Your task to perform on an android device: make emails show in primary in the gmail app Image 0: 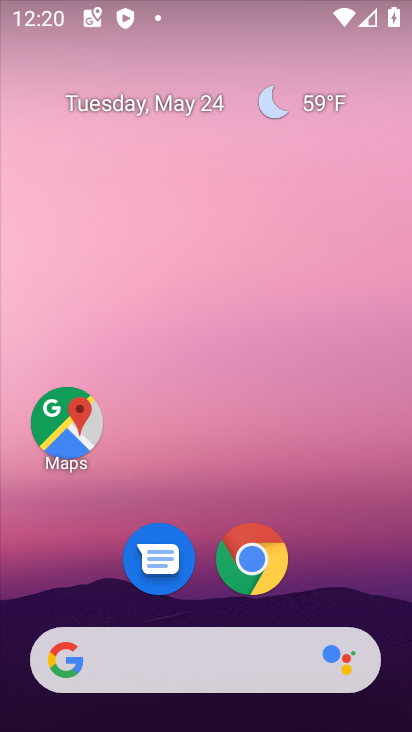
Step 0: drag from (384, 666) to (354, 168)
Your task to perform on an android device: make emails show in primary in the gmail app Image 1: 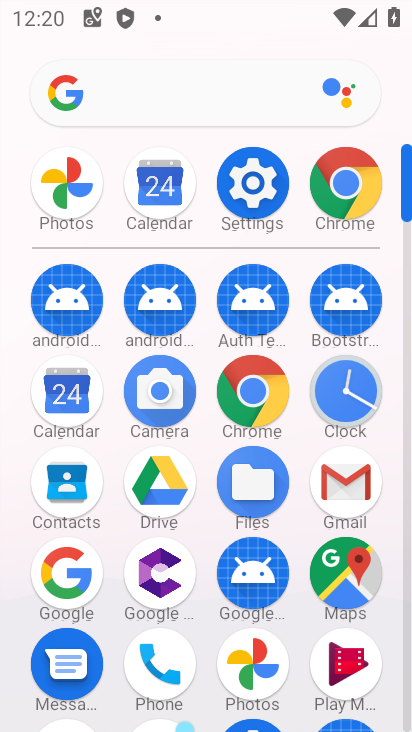
Step 1: click (348, 492)
Your task to perform on an android device: make emails show in primary in the gmail app Image 2: 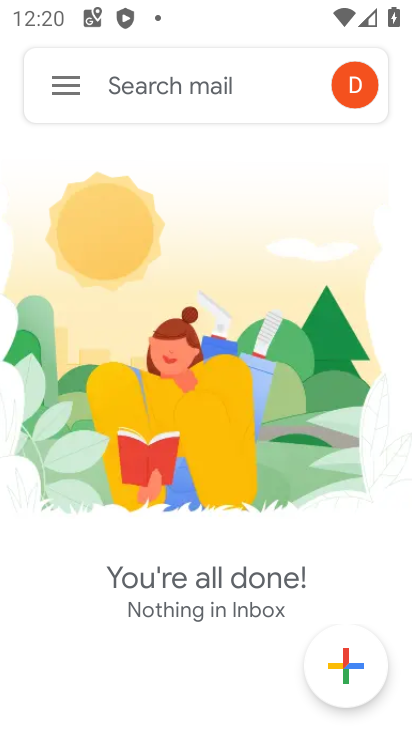
Step 2: click (73, 75)
Your task to perform on an android device: make emails show in primary in the gmail app Image 3: 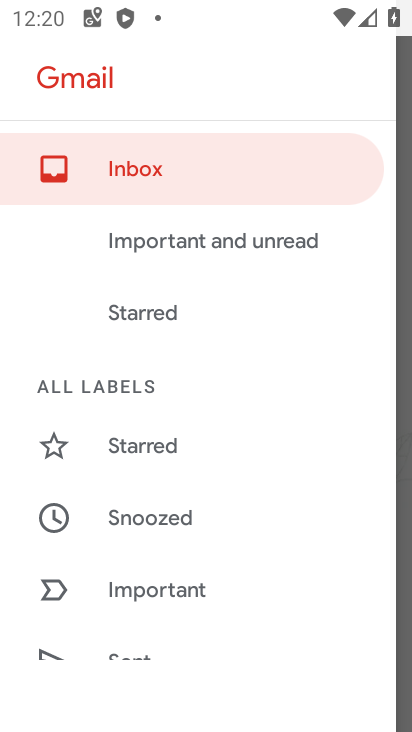
Step 3: drag from (275, 630) to (294, 222)
Your task to perform on an android device: make emails show in primary in the gmail app Image 4: 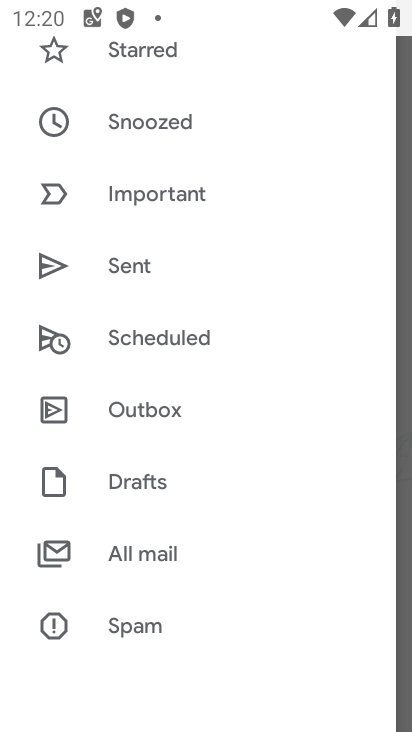
Step 4: drag from (264, 652) to (281, 299)
Your task to perform on an android device: make emails show in primary in the gmail app Image 5: 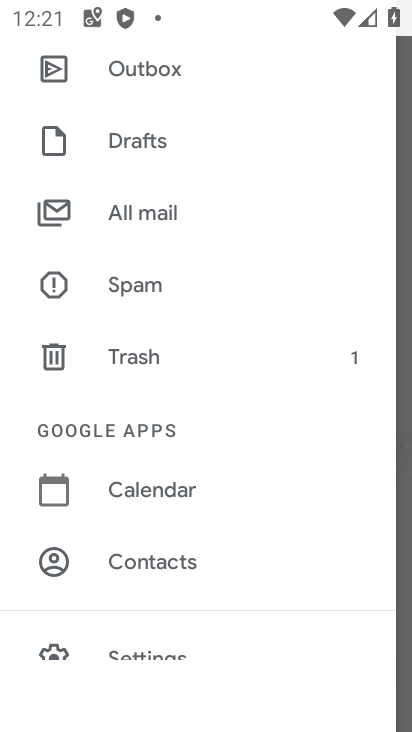
Step 5: drag from (270, 640) to (282, 292)
Your task to perform on an android device: make emails show in primary in the gmail app Image 6: 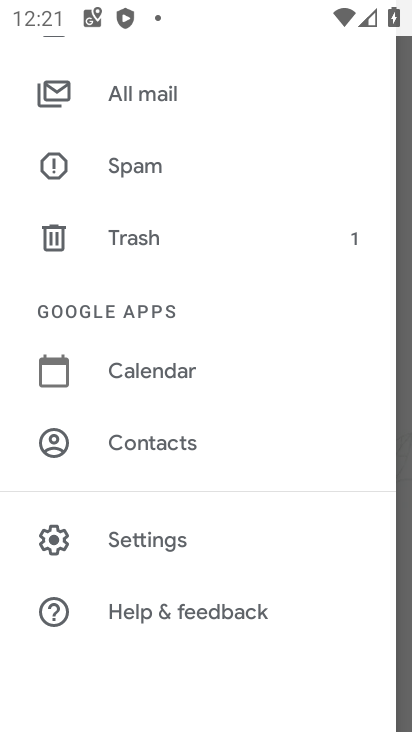
Step 6: click (126, 542)
Your task to perform on an android device: make emails show in primary in the gmail app Image 7: 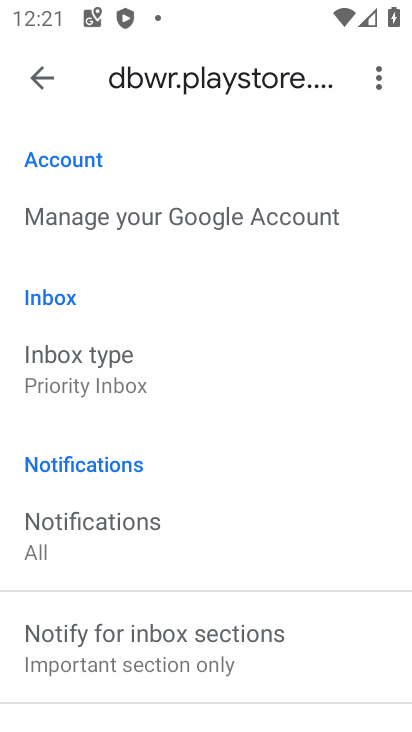
Step 7: click (70, 373)
Your task to perform on an android device: make emails show in primary in the gmail app Image 8: 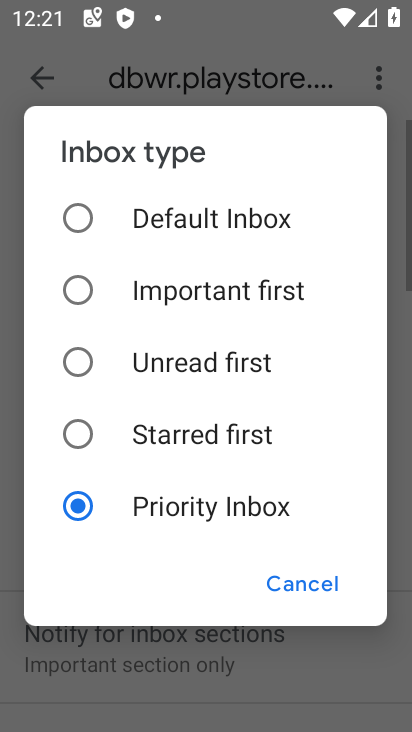
Step 8: click (80, 213)
Your task to perform on an android device: make emails show in primary in the gmail app Image 9: 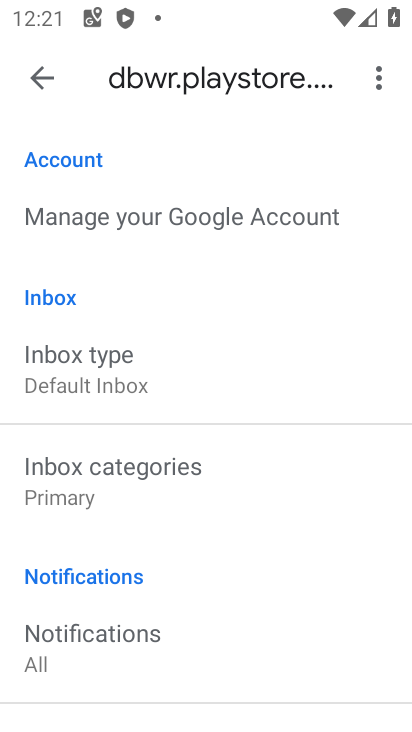
Step 9: click (64, 485)
Your task to perform on an android device: make emails show in primary in the gmail app Image 10: 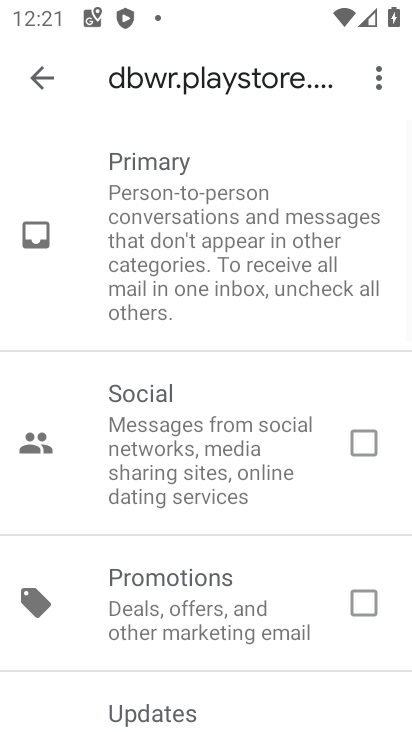
Step 10: click (33, 76)
Your task to perform on an android device: make emails show in primary in the gmail app Image 11: 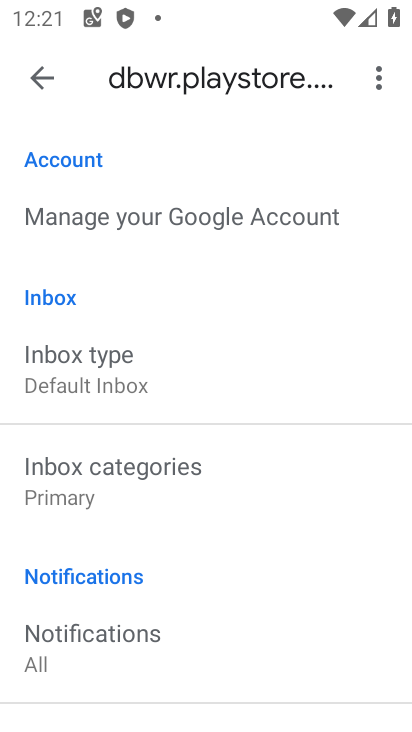
Step 11: task complete